Your task to perform on an android device: search for starred emails in the gmail app Image 0: 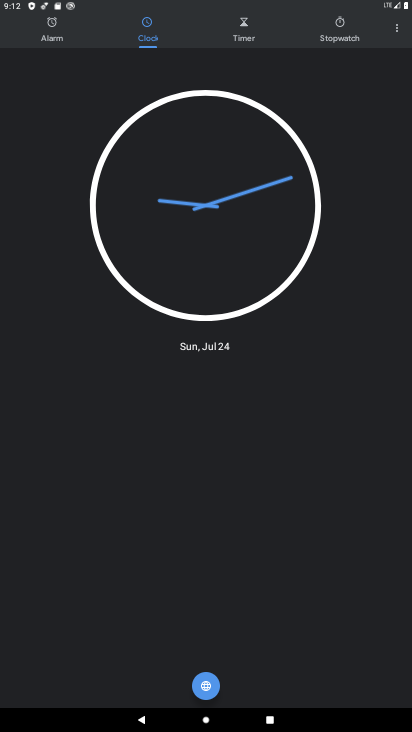
Step 0: press home button
Your task to perform on an android device: search for starred emails in the gmail app Image 1: 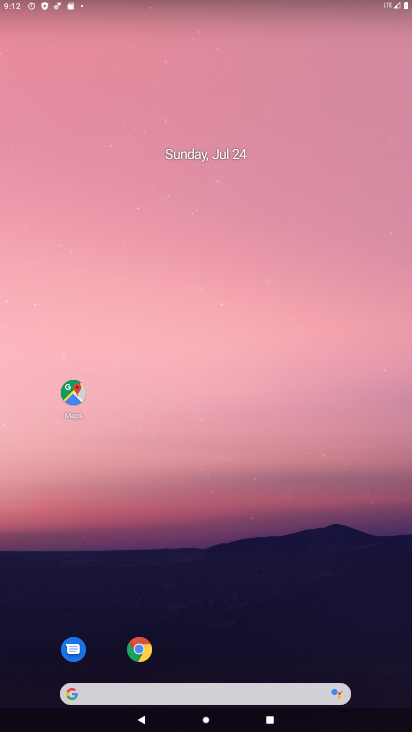
Step 1: drag from (35, 678) to (206, 226)
Your task to perform on an android device: search for starred emails in the gmail app Image 2: 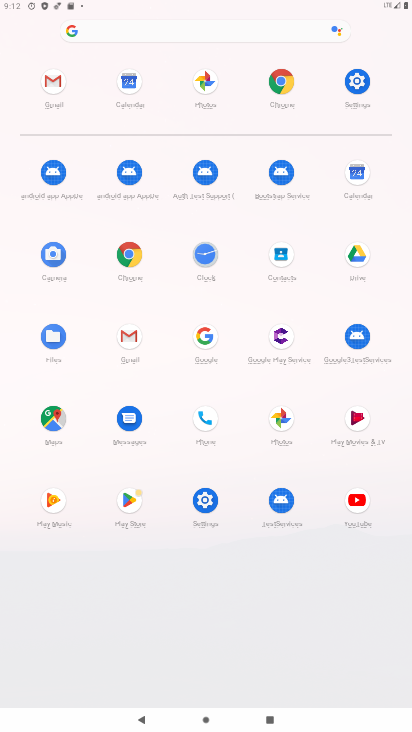
Step 2: click (129, 342)
Your task to perform on an android device: search for starred emails in the gmail app Image 3: 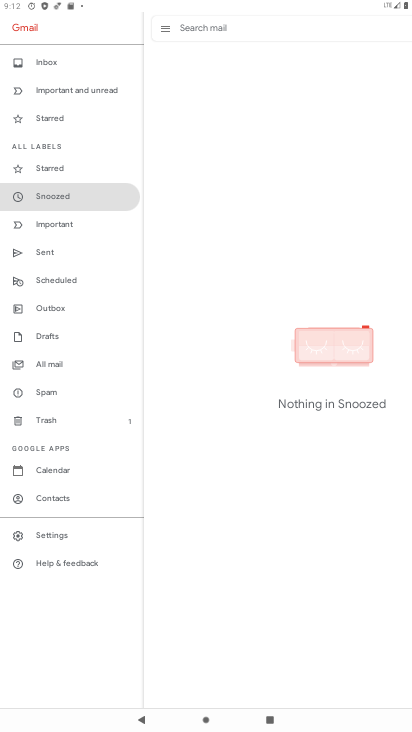
Step 3: click (64, 169)
Your task to perform on an android device: search for starred emails in the gmail app Image 4: 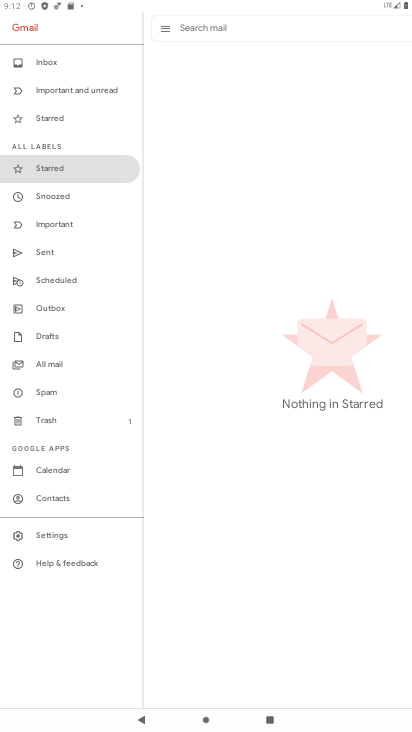
Step 4: task complete